Your task to perform on an android device: delete the emails in spam in the gmail app Image 0: 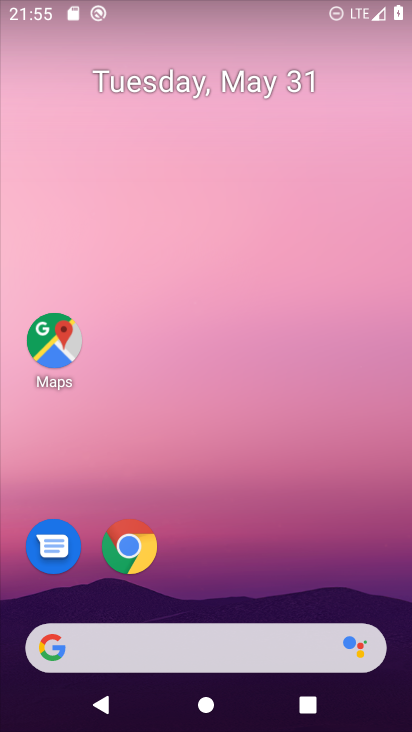
Step 0: drag from (389, 711) to (378, 241)
Your task to perform on an android device: delete the emails in spam in the gmail app Image 1: 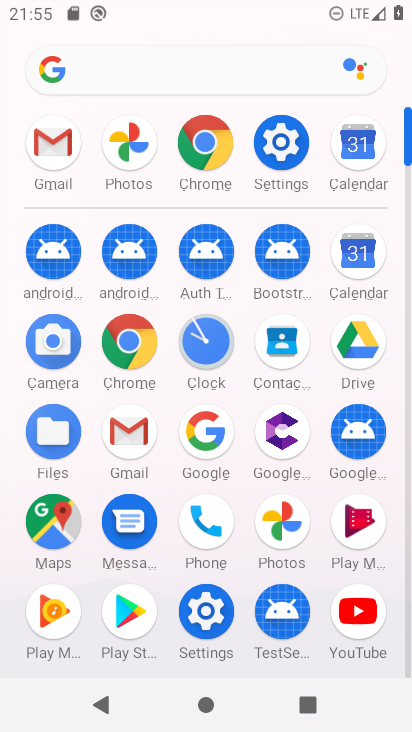
Step 1: click (130, 437)
Your task to perform on an android device: delete the emails in spam in the gmail app Image 2: 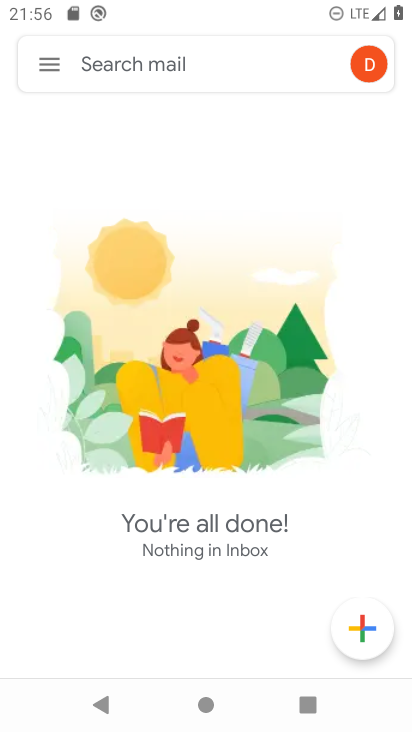
Step 2: click (60, 65)
Your task to perform on an android device: delete the emails in spam in the gmail app Image 3: 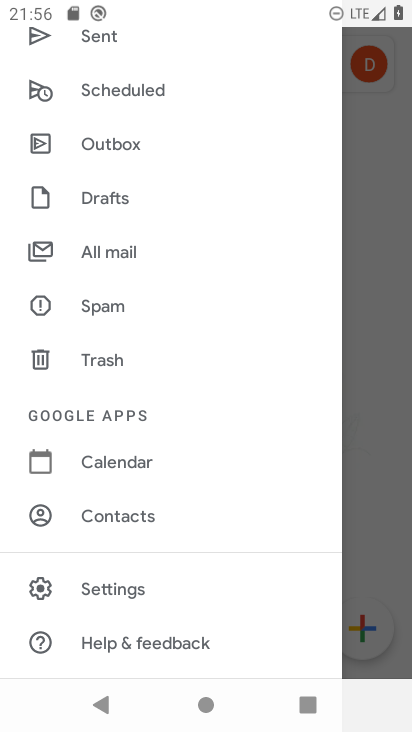
Step 3: click (103, 303)
Your task to perform on an android device: delete the emails in spam in the gmail app Image 4: 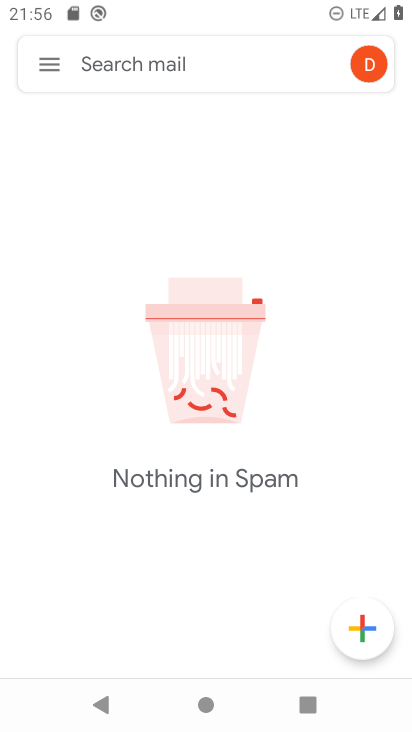
Step 4: task complete